Your task to perform on an android device: Go to sound settings Image 0: 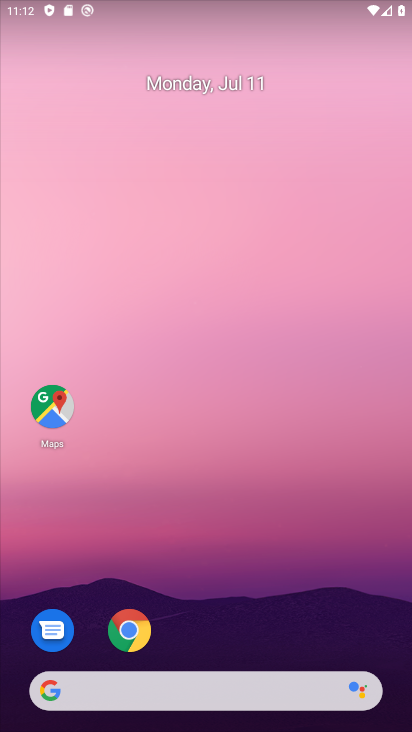
Step 0: drag from (185, 689) to (236, 54)
Your task to perform on an android device: Go to sound settings Image 1: 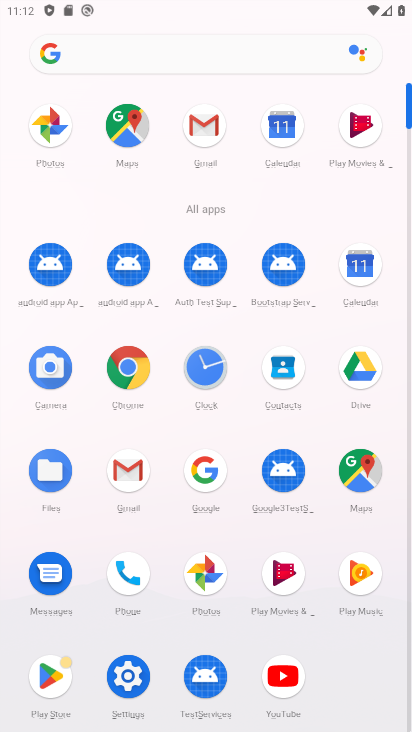
Step 1: click (128, 676)
Your task to perform on an android device: Go to sound settings Image 2: 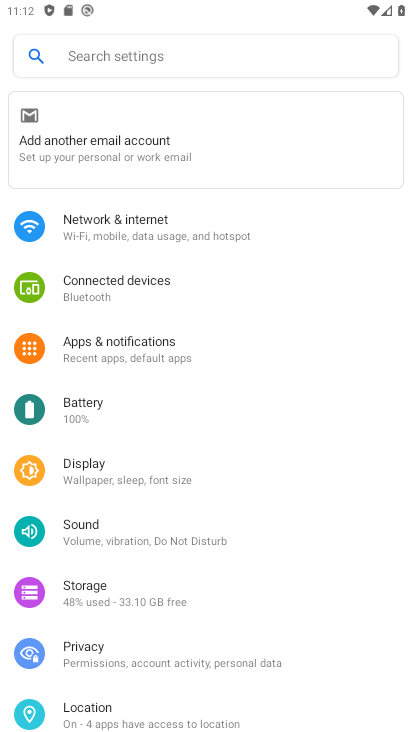
Step 2: click (105, 541)
Your task to perform on an android device: Go to sound settings Image 3: 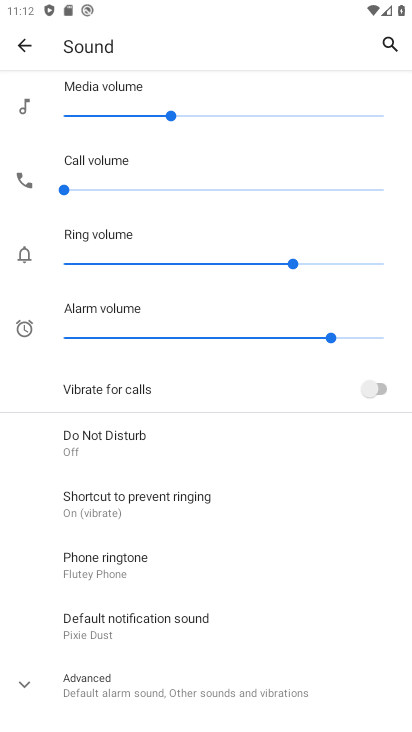
Step 3: task complete